Your task to perform on an android device: find photos in the google photos app Image 0: 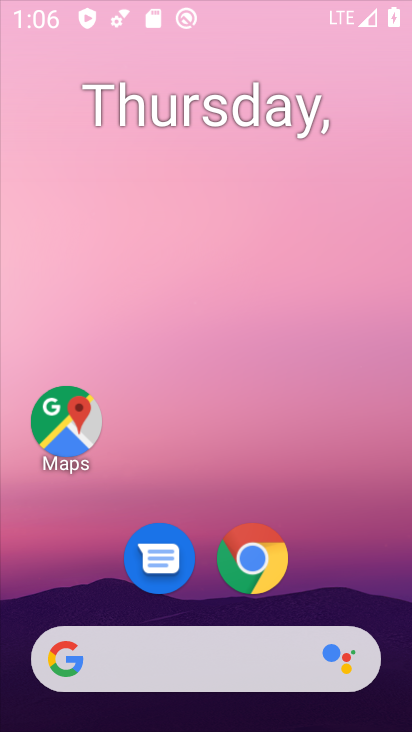
Step 0: click (248, 550)
Your task to perform on an android device: find photos in the google photos app Image 1: 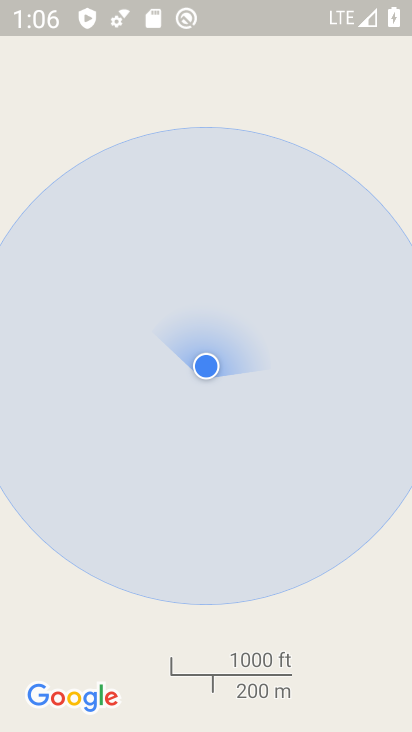
Step 1: press home button
Your task to perform on an android device: find photos in the google photos app Image 2: 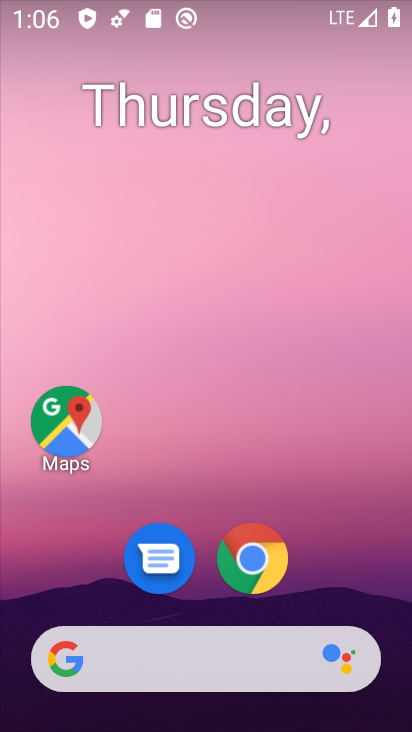
Step 2: drag from (337, 580) to (343, 176)
Your task to perform on an android device: find photos in the google photos app Image 3: 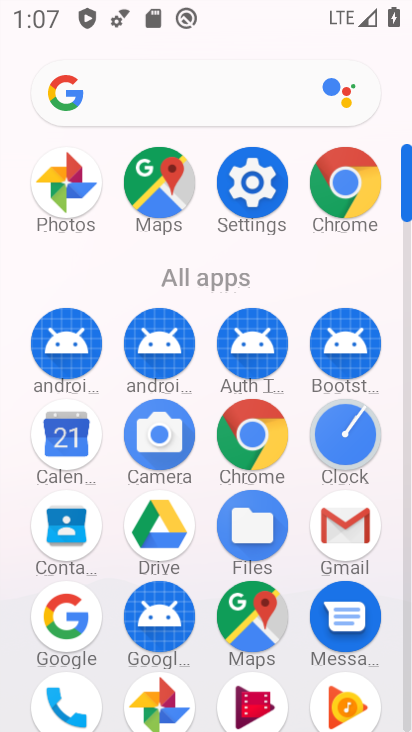
Step 3: click (157, 694)
Your task to perform on an android device: find photos in the google photos app Image 4: 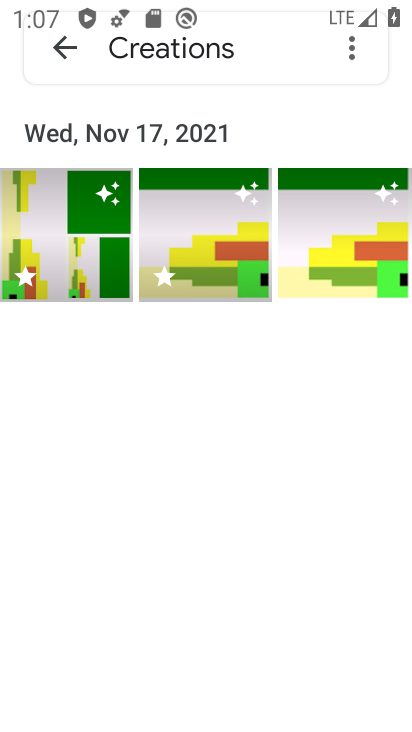
Step 4: click (60, 40)
Your task to perform on an android device: find photos in the google photos app Image 5: 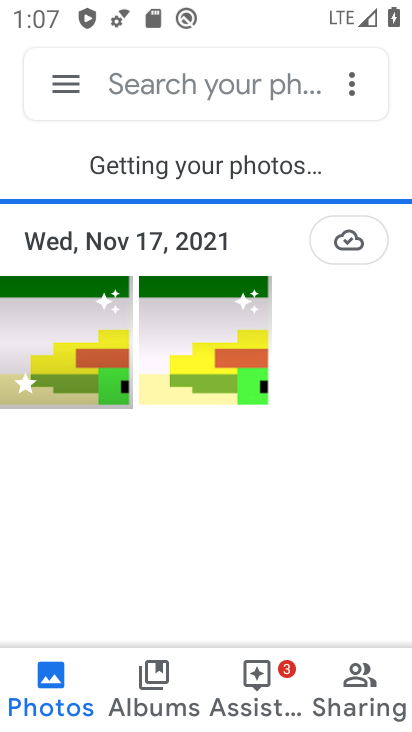
Step 5: click (113, 386)
Your task to perform on an android device: find photos in the google photos app Image 6: 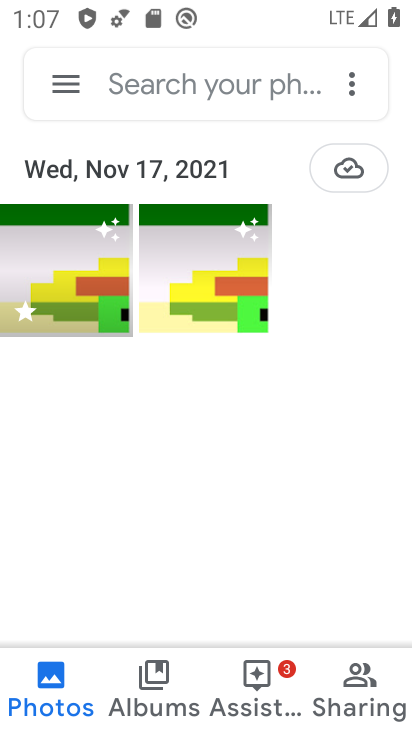
Step 6: task complete